Your task to perform on an android device: When is my next appointment? Image 0: 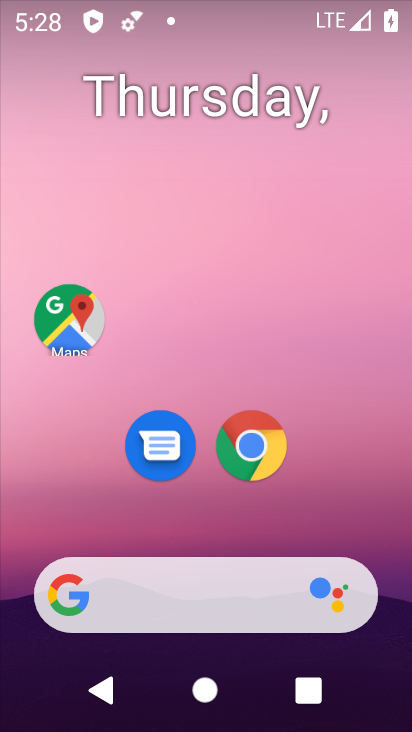
Step 0: drag from (296, 510) to (325, 145)
Your task to perform on an android device: When is my next appointment? Image 1: 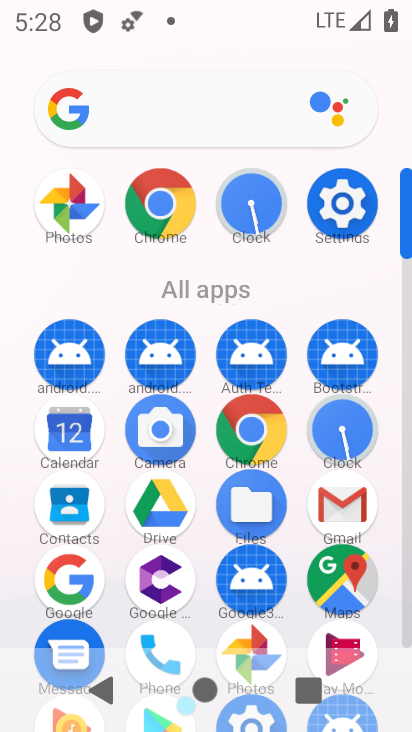
Step 1: click (59, 434)
Your task to perform on an android device: When is my next appointment? Image 2: 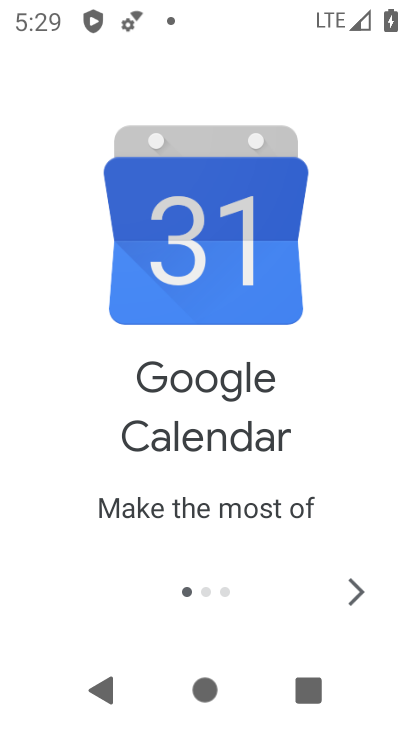
Step 2: click (355, 581)
Your task to perform on an android device: When is my next appointment? Image 3: 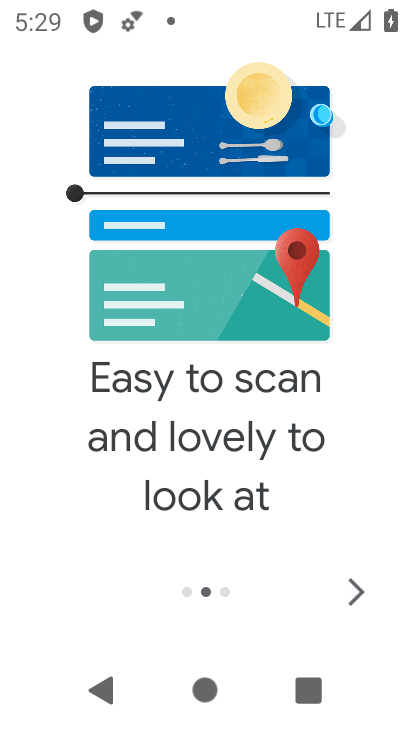
Step 3: click (355, 581)
Your task to perform on an android device: When is my next appointment? Image 4: 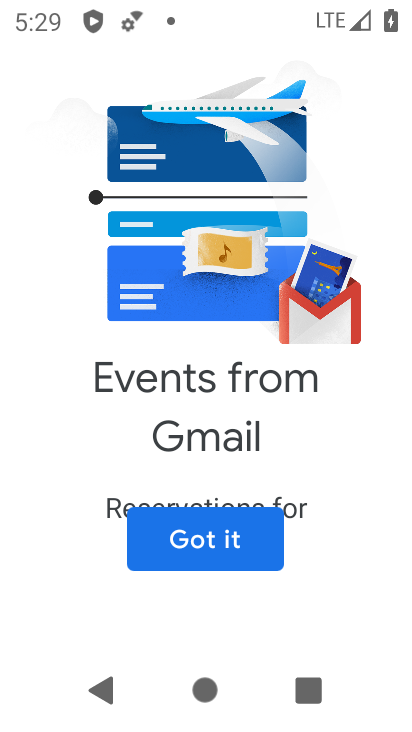
Step 4: click (227, 535)
Your task to perform on an android device: When is my next appointment? Image 5: 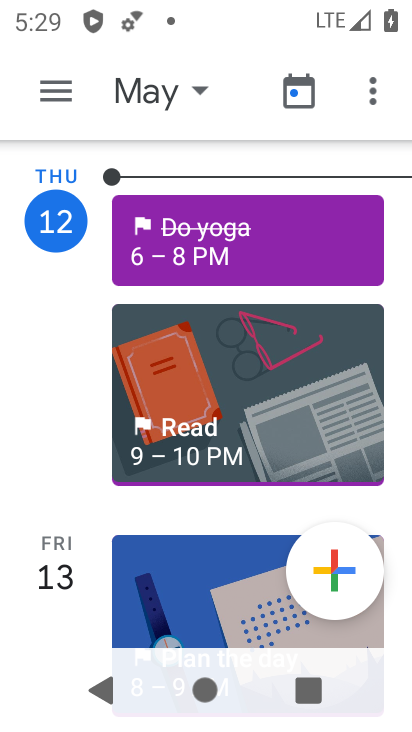
Step 5: click (42, 82)
Your task to perform on an android device: When is my next appointment? Image 6: 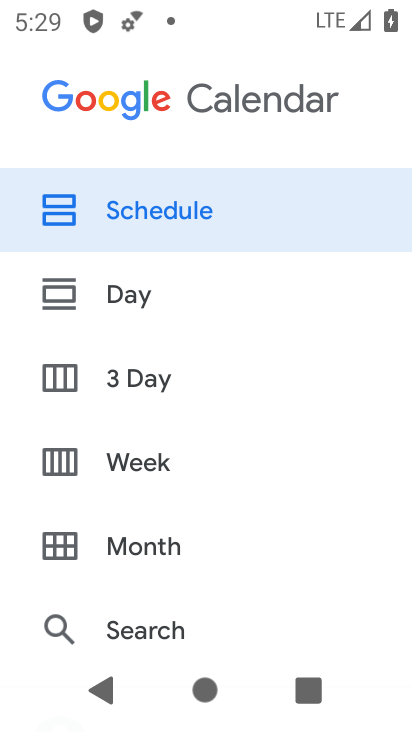
Step 6: click (139, 208)
Your task to perform on an android device: When is my next appointment? Image 7: 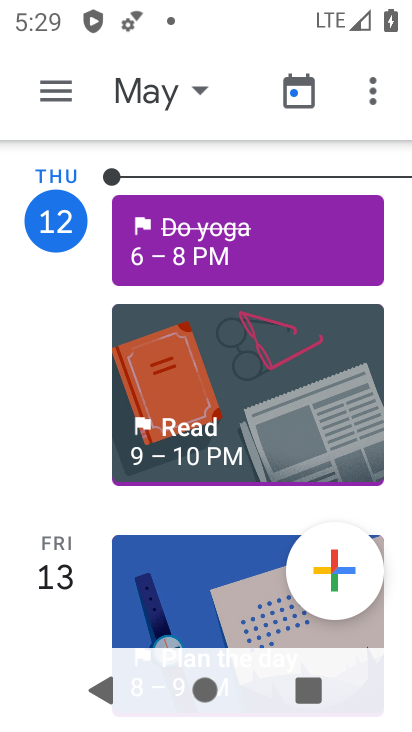
Step 7: task complete